Your task to perform on an android device: turn off location history Image 0: 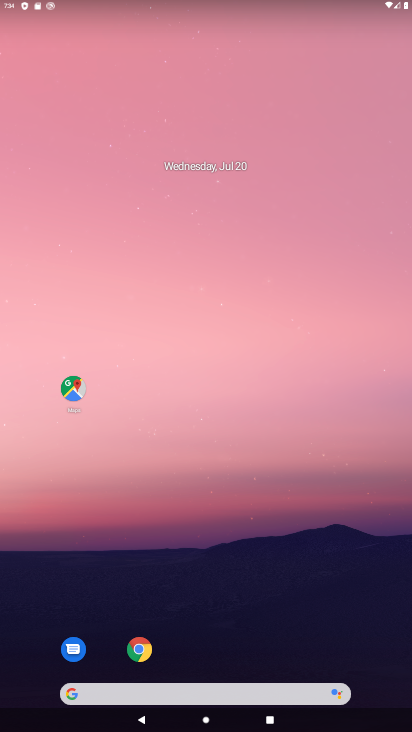
Step 0: drag from (253, 659) to (224, 170)
Your task to perform on an android device: turn off location history Image 1: 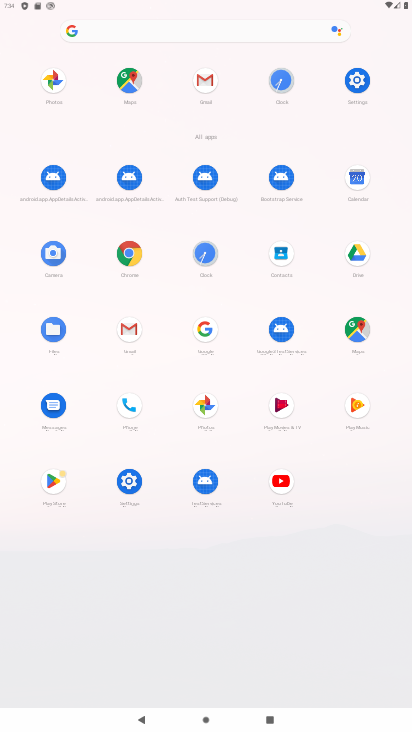
Step 1: click (353, 72)
Your task to perform on an android device: turn off location history Image 2: 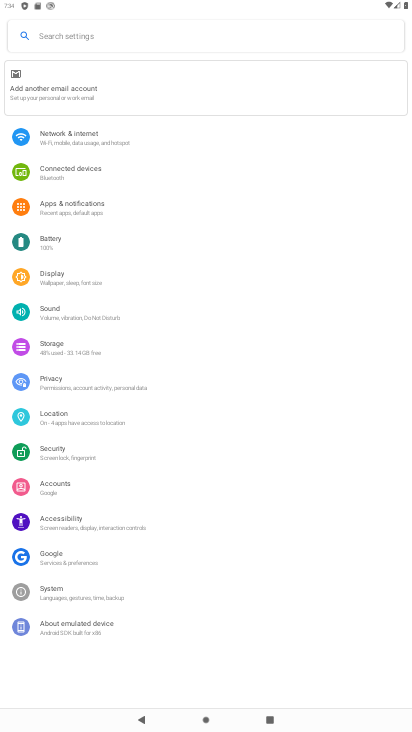
Step 2: click (109, 414)
Your task to perform on an android device: turn off location history Image 3: 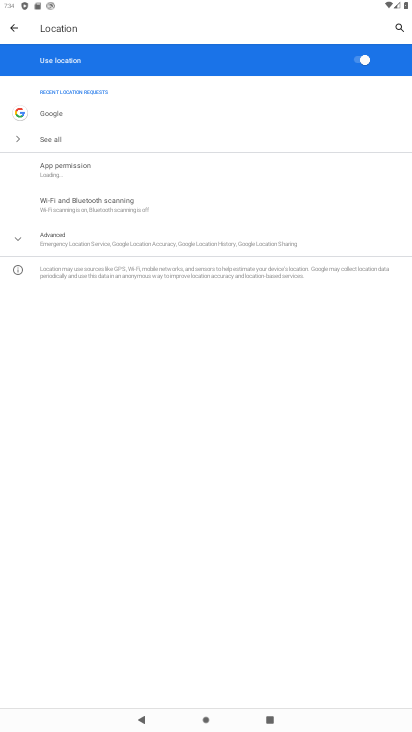
Step 3: click (368, 55)
Your task to perform on an android device: turn off location history Image 4: 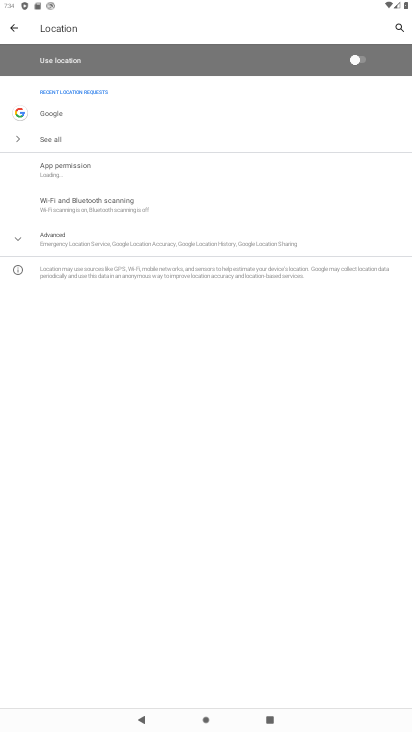
Step 4: click (368, 55)
Your task to perform on an android device: turn off location history Image 5: 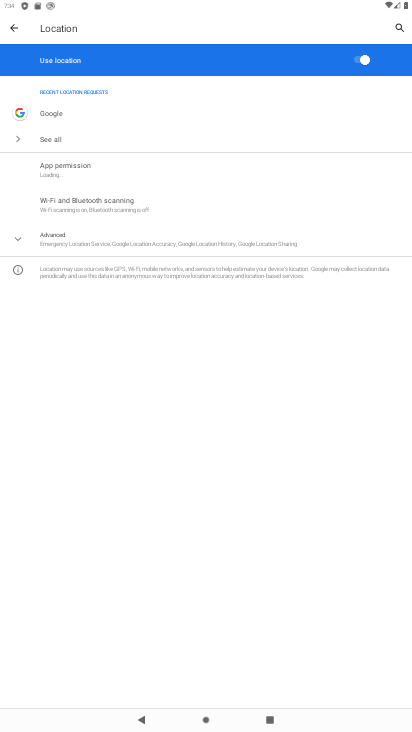
Step 5: click (130, 243)
Your task to perform on an android device: turn off location history Image 6: 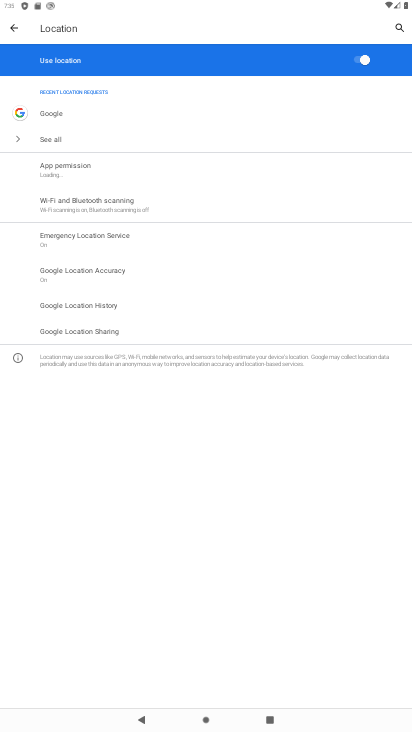
Step 6: click (118, 305)
Your task to perform on an android device: turn off location history Image 7: 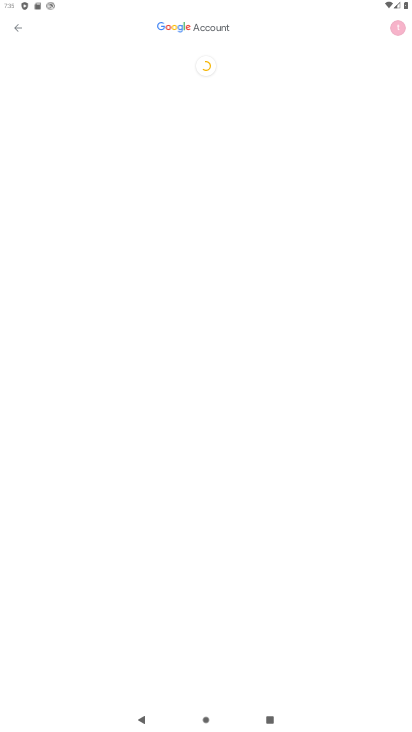
Step 7: task complete